Your task to perform on an android device: Open a new tab in Chrome Image 0: 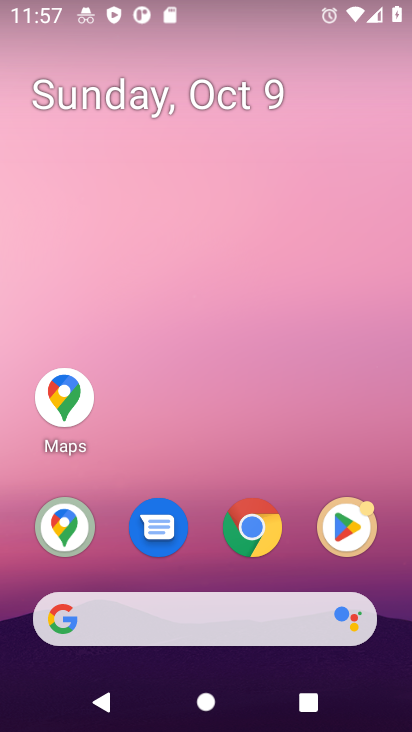
Step 0: click (275, 537)
Your task to perform on an android device: Open a new tab in Chrome Image 1: 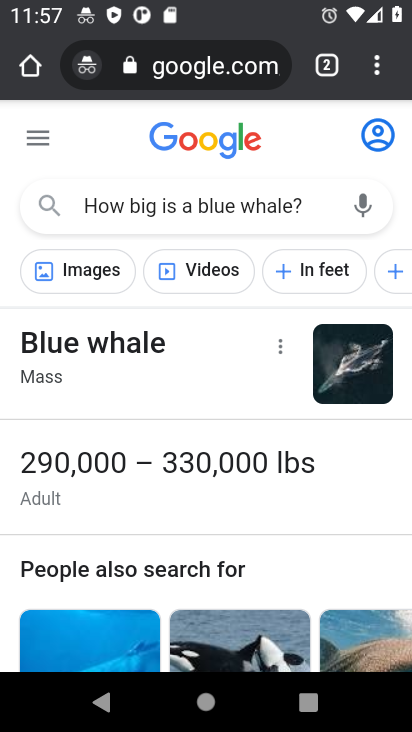
Step 1: click (372, 67)
Your task to perform on an android device: Open a new tab in Chrome Image 2: 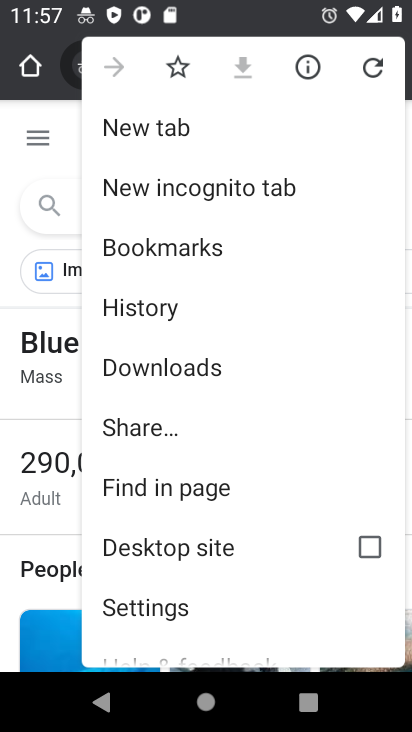
Step 2: click (180, 135)
Your task to perform on an android device: Open a new tab in Chrome Image 3: 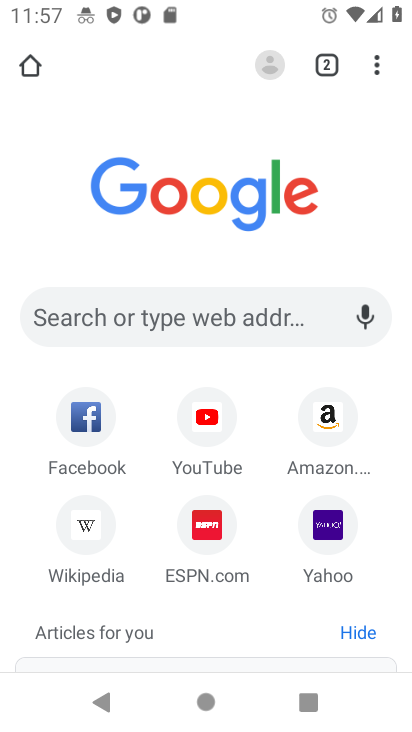
Step 3: task complete